Your task to perform on an android device: turn off location history Image 0: 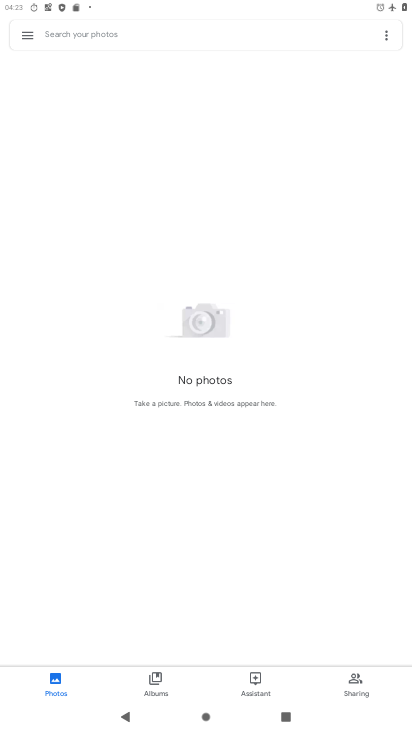
Step 0: press home button
Your task to perform on an android device: turn off location history Image 1: 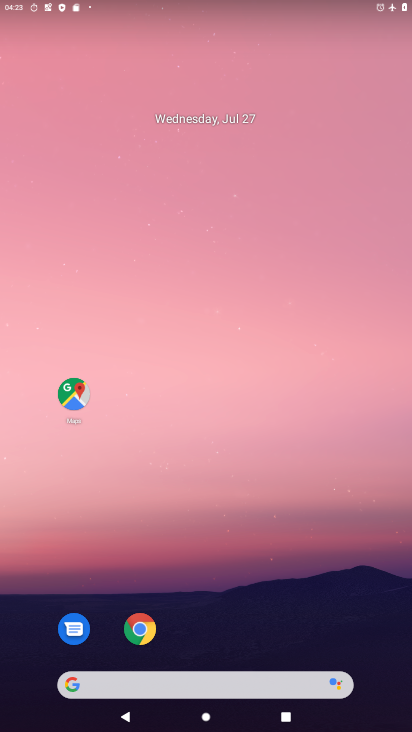
Step 1: drag from (300, 627) to (243, 69)
Your task to perform on an android device: turn off location history Image 2: 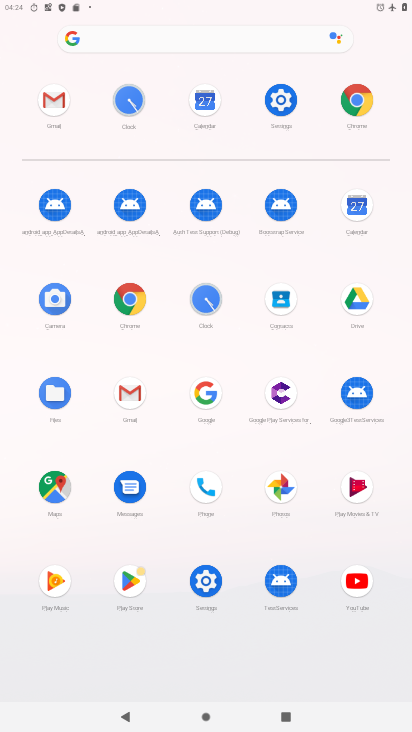
Step 2: click (284, 95)
Your task to perform on an android device: turn off location history Image 3: 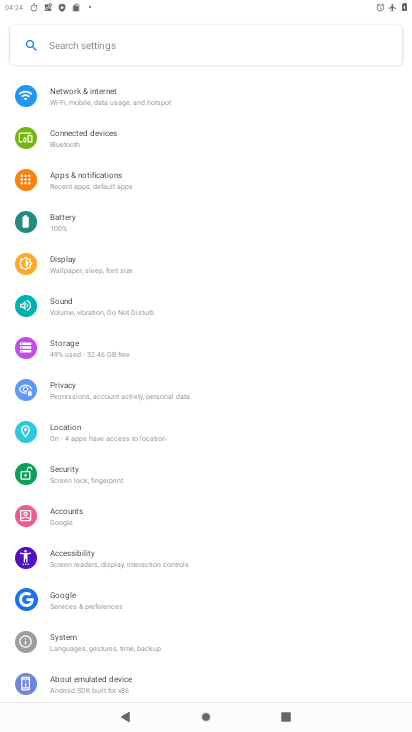
Step 3: click (65, 435)
Your task to perform on an android device: turn off location history Image 4: 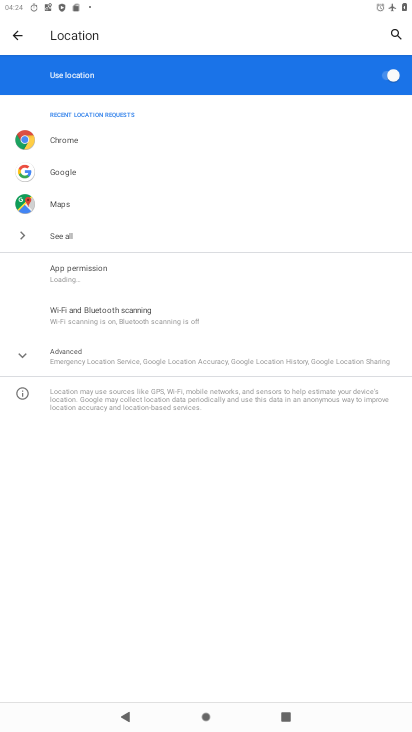
Step 4: click (135, 354)
Your task to perform on an android device: turn off location history Image 5: 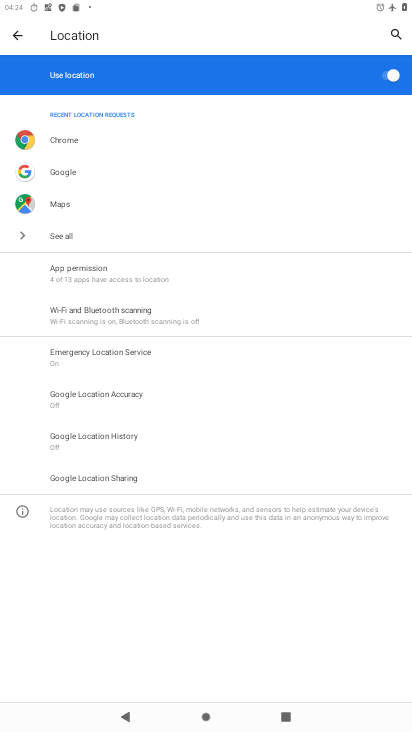
Step 5: click (127, 430)
Your task to perform on an android device: turn off location history Image 6: 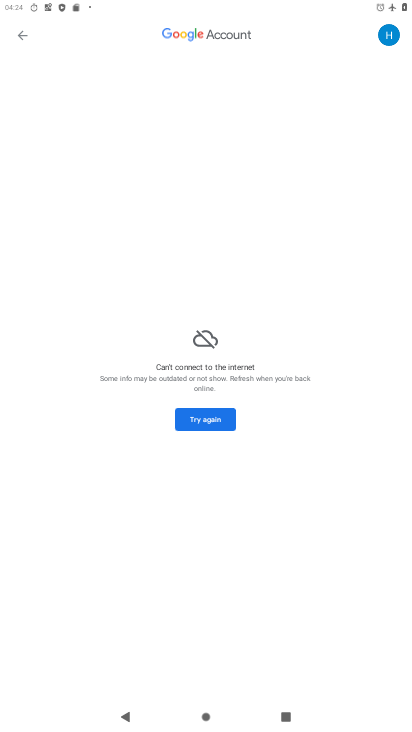
Step 6: task complete